Your task to perform on an android device: Search for Italian restaurants on Maps Image 0: 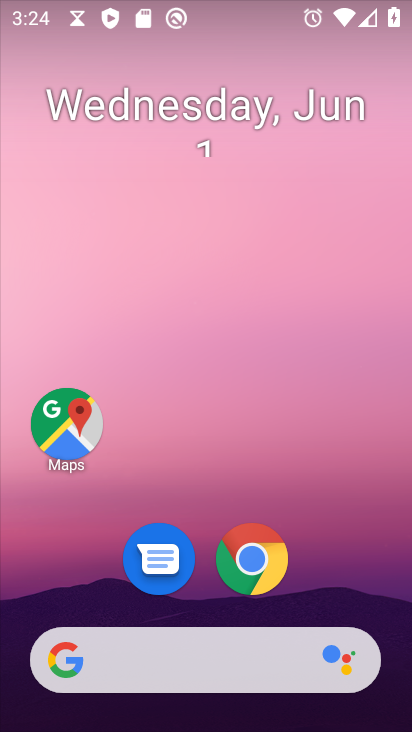
Step 0: click (66, 428)
Your task to perform on an android device: Search for Italian restaurants on Maps Image 1: 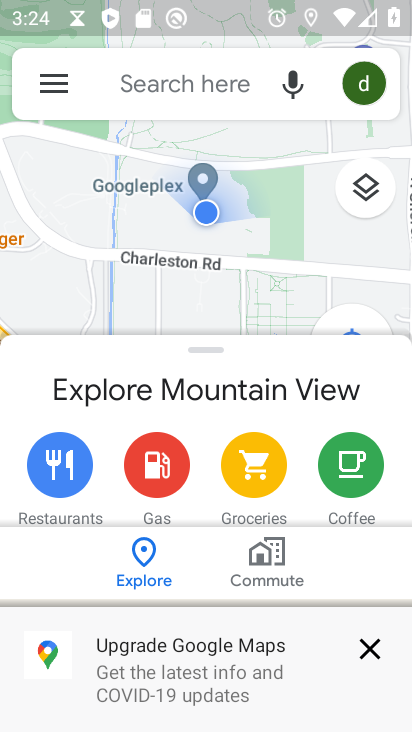
Step 1: click (168, 83)
Your task to perform on an android device: Search for Italian restaurants on Maps Image 2: 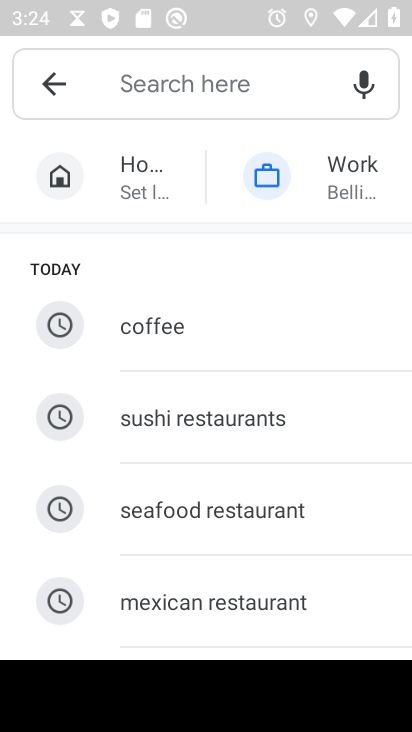
Step 2: type "italian restaurants"
Your task to perform on an android device: Search for Italian restaurants on Maps Image 3: 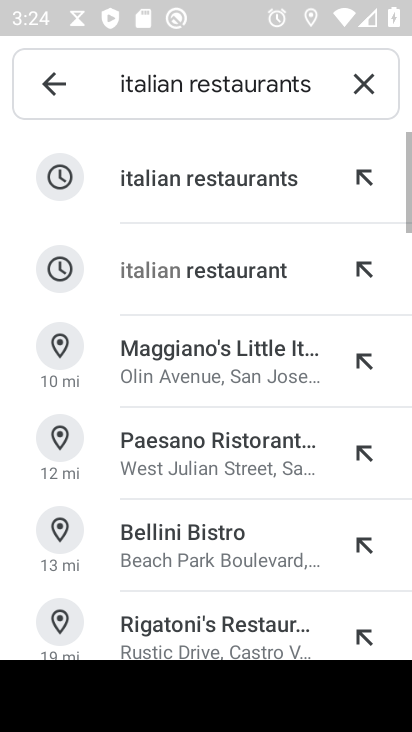
Step 3: click (180, 181)
Your task to perform on an android device: Search for Italian restaurants on Maps Image 4: 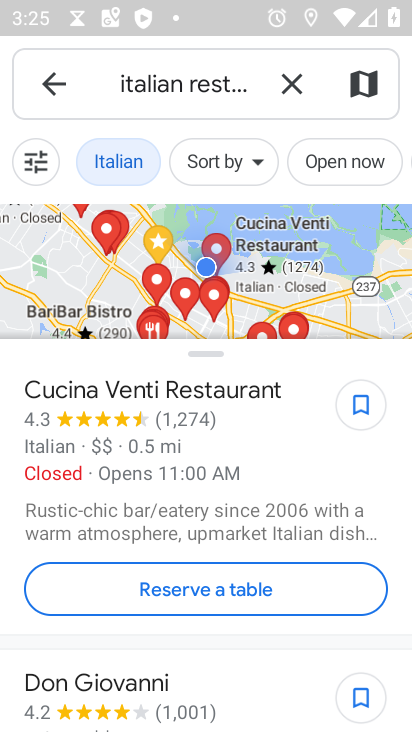
Step 4: task complete